Your task to perform on an android device: Open ESPN.com Image 0: 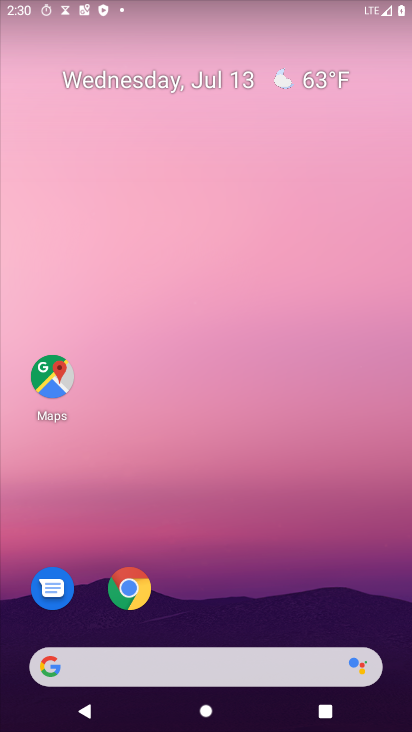
Step 0: click (138, 576)
Your task to perform on an android device: Open ESPN.com Image 1: 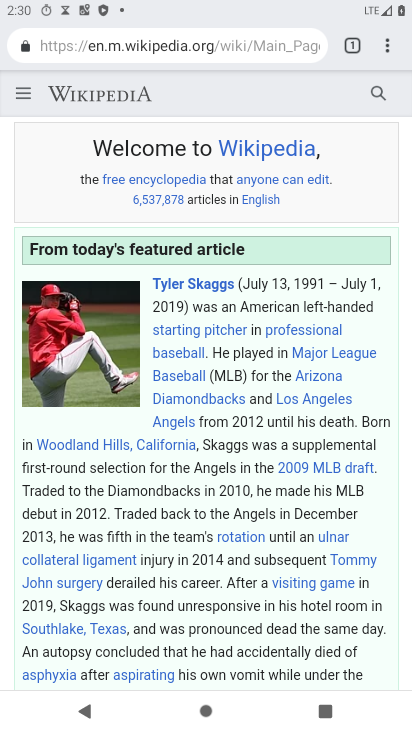
Step 1: click (204, 51)
Your task to perform on an android device: Open ESPN.com Image 2: 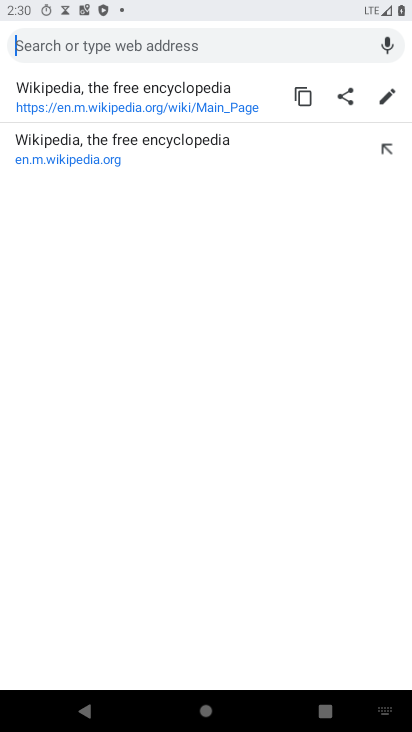
Step 2: type "espn.com"
Your task to perform on an android device: Open ESPN.com Image 3: 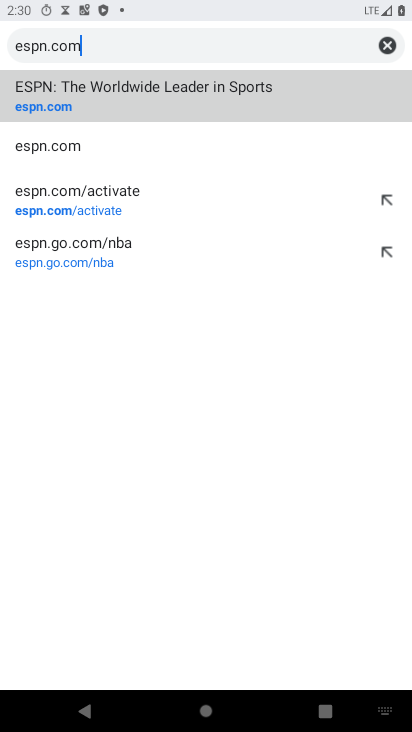
Step 3: click (293, 106)
Your task to perform on an android device: Open ESPN.com Image 4: 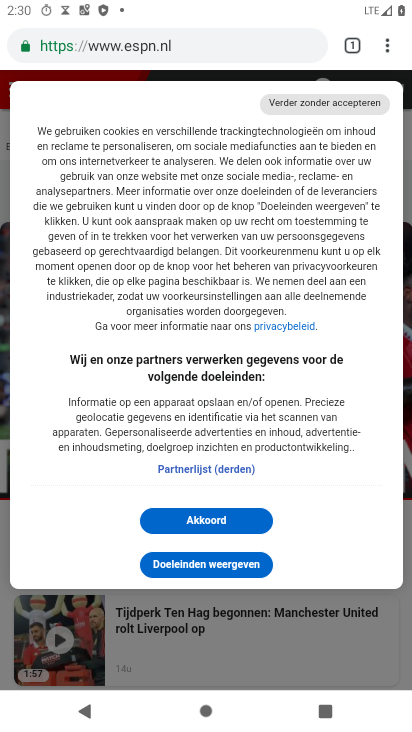
Step 4: task complete